Your task to perform on an android device: change text size in settings app Image 0: 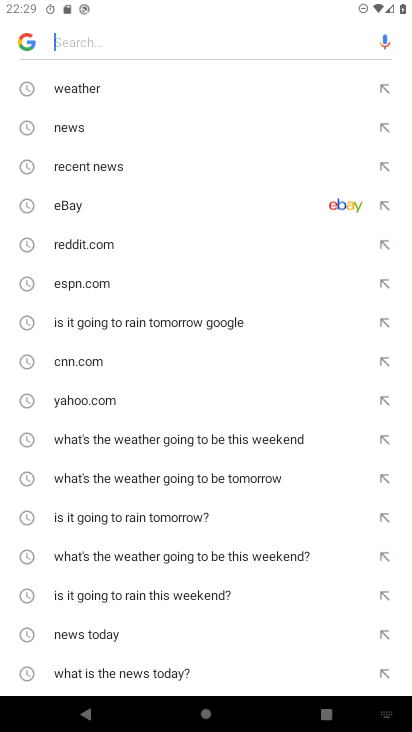
Step 0: press home button
Your task to perform on an android device: change text size in settings app Image 1: 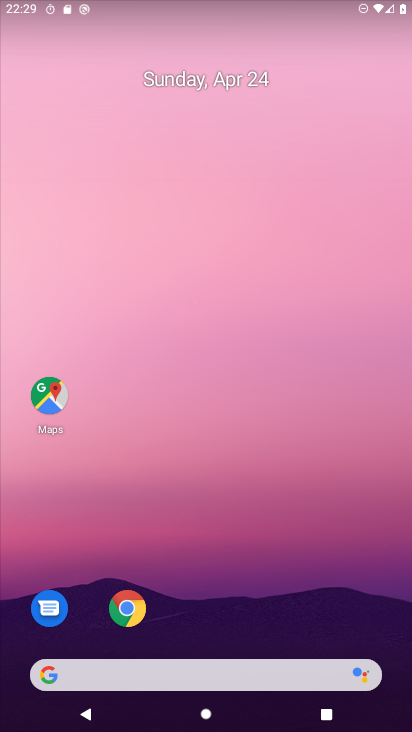
Step 1: drag from (272, 516) to (280, 43)
Your task to perform on an android device: change text size in settings app Image 2: 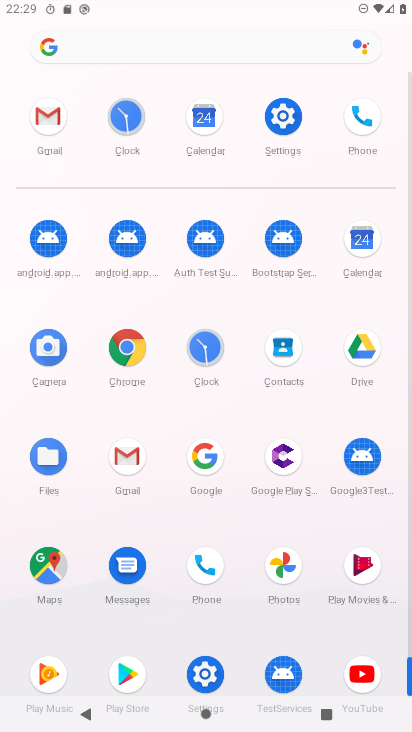
Step 2: click (284, 117)
Your task to perform on an android device: change text size in settings app Image 3: 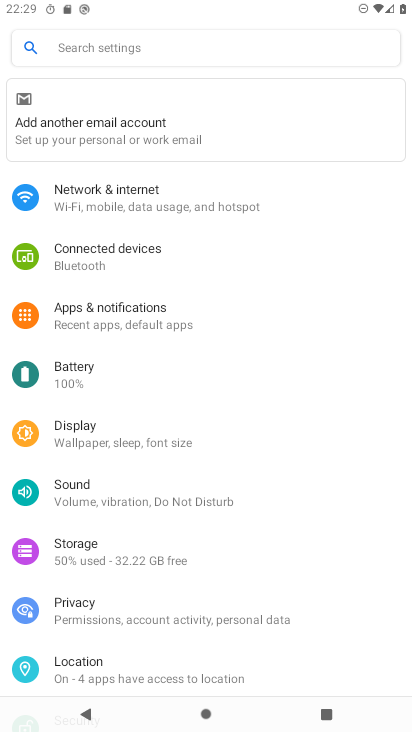
Step 3: click (173, 430)
Your task to perform on an android device: change text size in settings app Image 4: 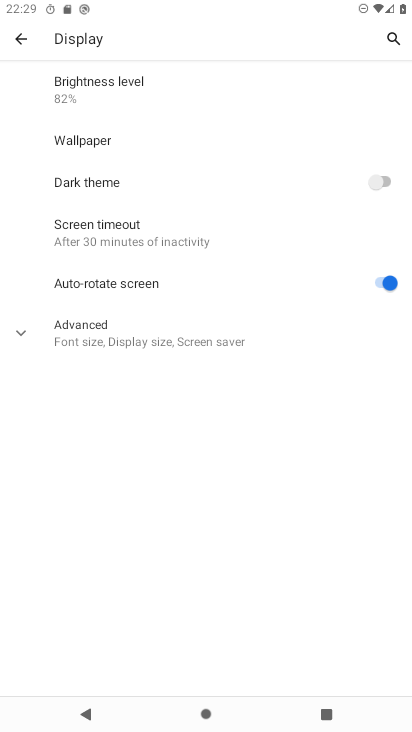
Step 4: click (19, 332)
Your task to perform on an android device: change text size in settings app Image 5: 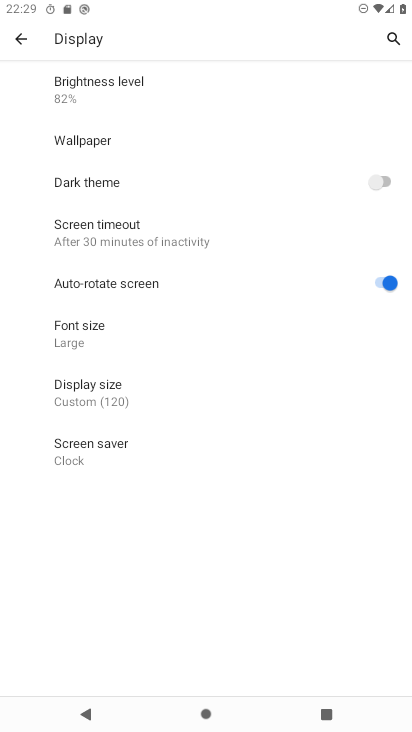
Step 5: click (93, 330)
Your task to perform on an android device: change text size in settings app Image 6: 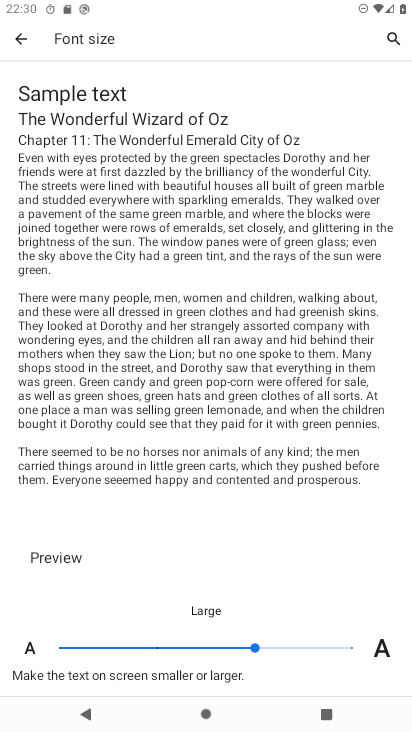
Step 6: click (350, 648)
Your task to perform on an android device: change text size in settings app Image 7: 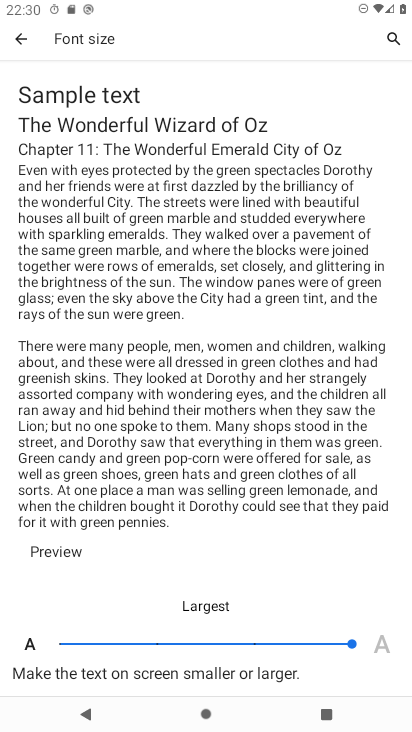
Step 7: task complete